Your task to perform on an android device: Go to calendar. Show me events next week Image 0: 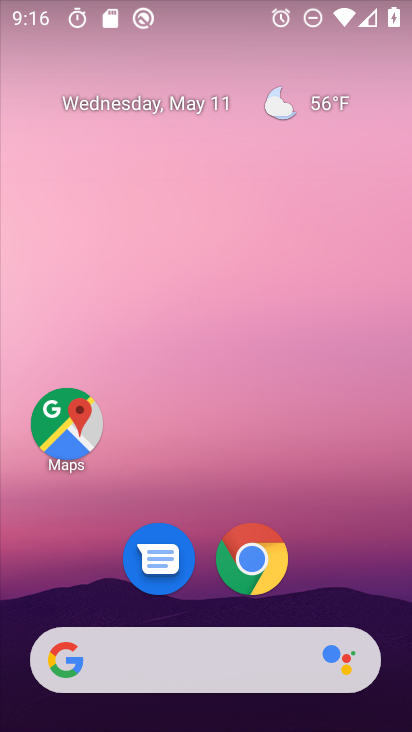
Step 0: drag from (326, 568) to (254, 67)
Your task to perform on an android device: Go to calendar. Show me events next week Image 1: 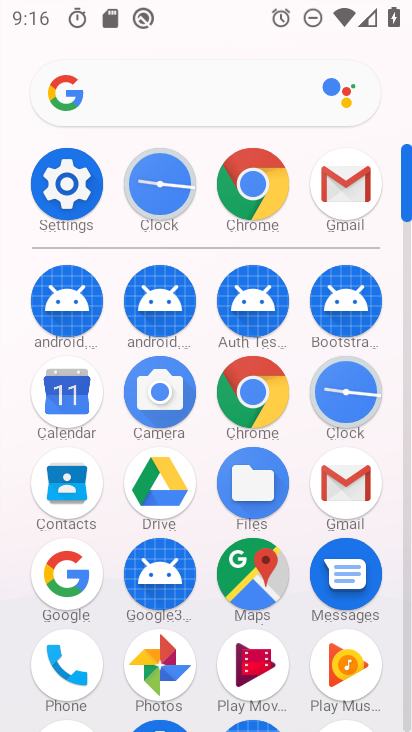
Step 1: click (84, 398)
Your task to perform on an android device: Go to calendar. Show me events next week Image 2: 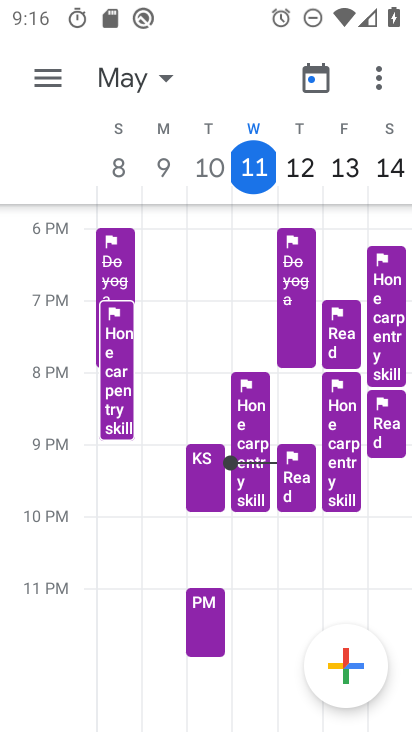
Step 2: click (144, 75)
Your task to perform on an android device: Go to calendar. Show me events next week Image 3: 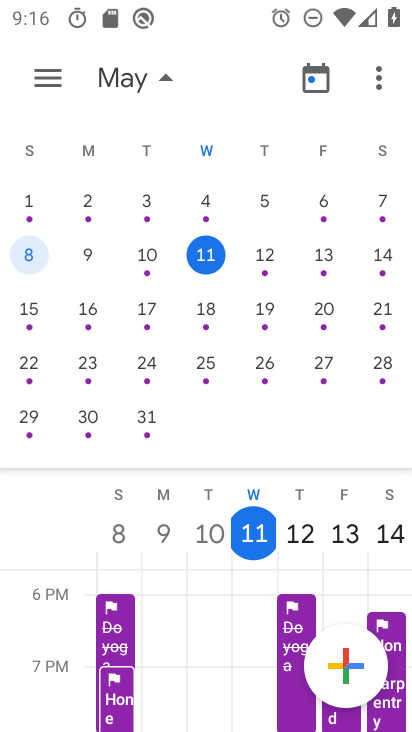
Step 3: click (200, 311)
Your task to perform on an android device: Go to calendar. Show me events next week Image 4: 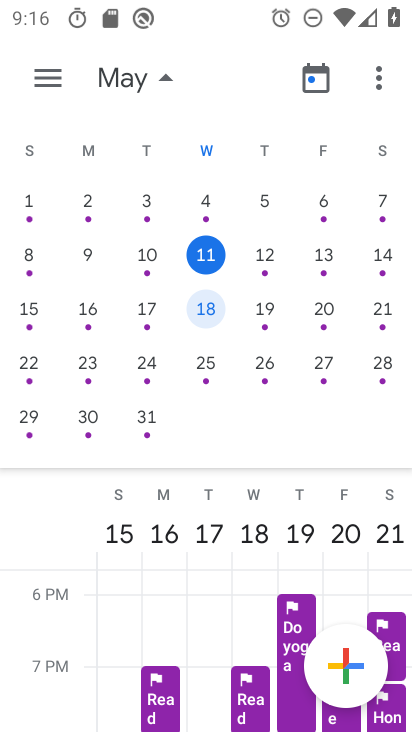
Step 4: task complete